Your task to perform on an android device: Open the calendar app, open the side menu, and click the "Day" option Image 0: 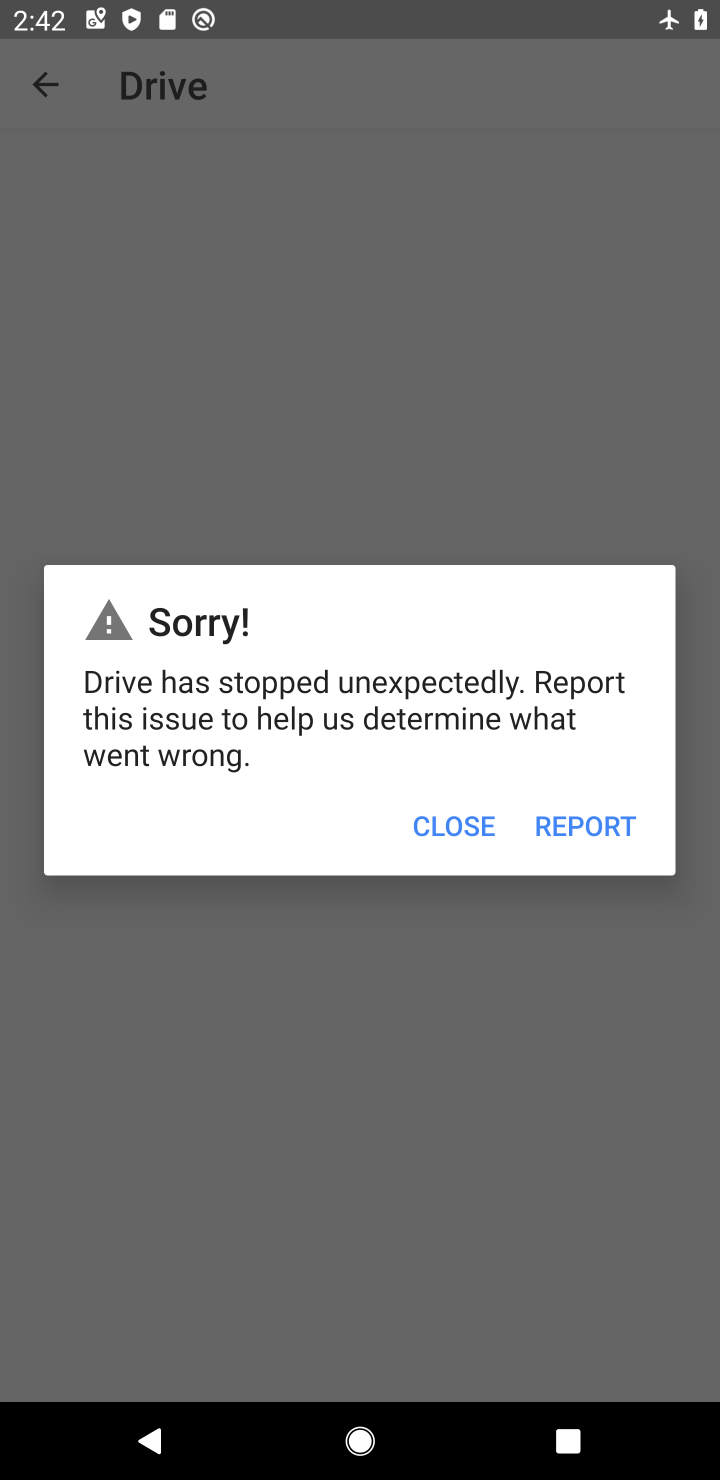
Step 0: press home button
Your task to perform on an android device: Open the calendar app, open the side menu, and click the "Day" option Image 1: 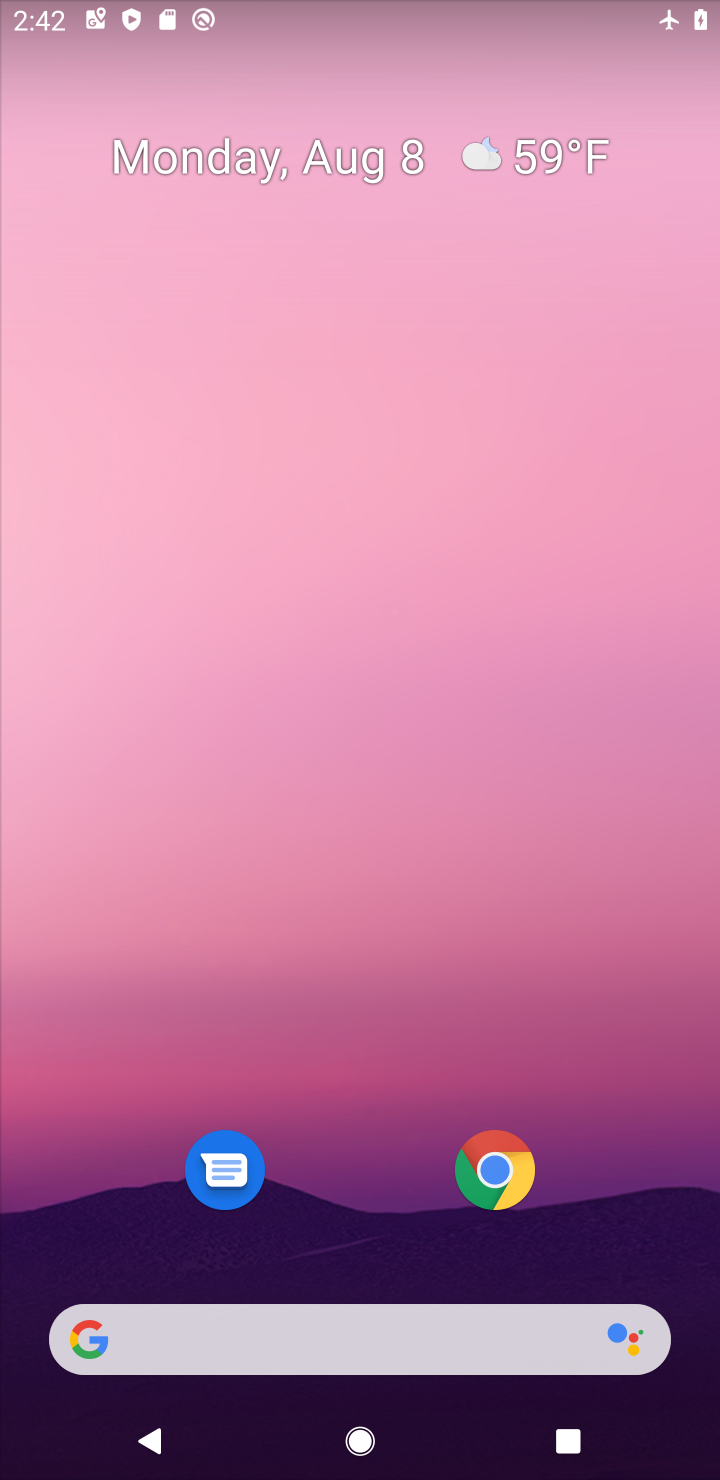
Step 1: drag from (413, 1177) to (467, 418)
Your task to perform on an android device: Open the calendar app, open the side menu, and click the "Day" option Image 2: 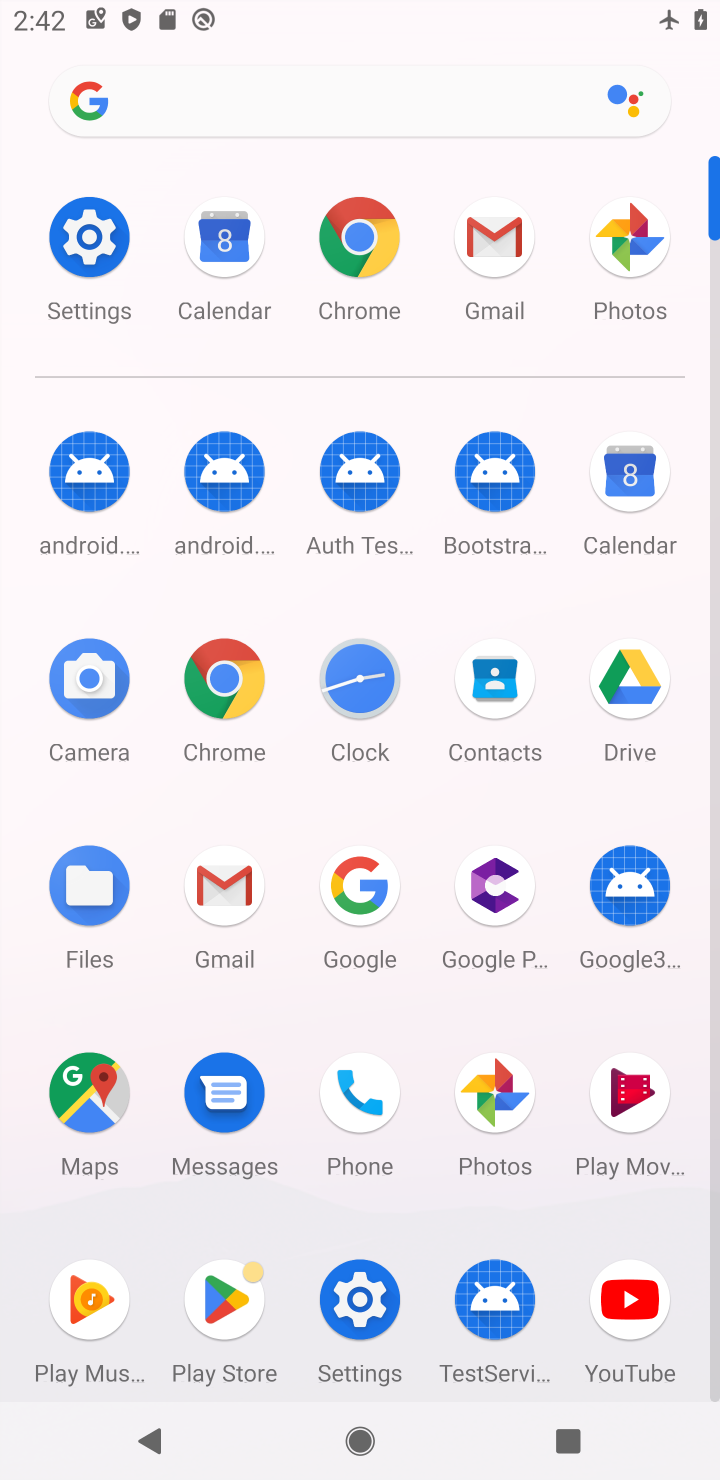
Step 2: click (625, 520)
Your task to perform on an android device: Open the calendar app, open the side menu, and click the "Day" option Image 3: 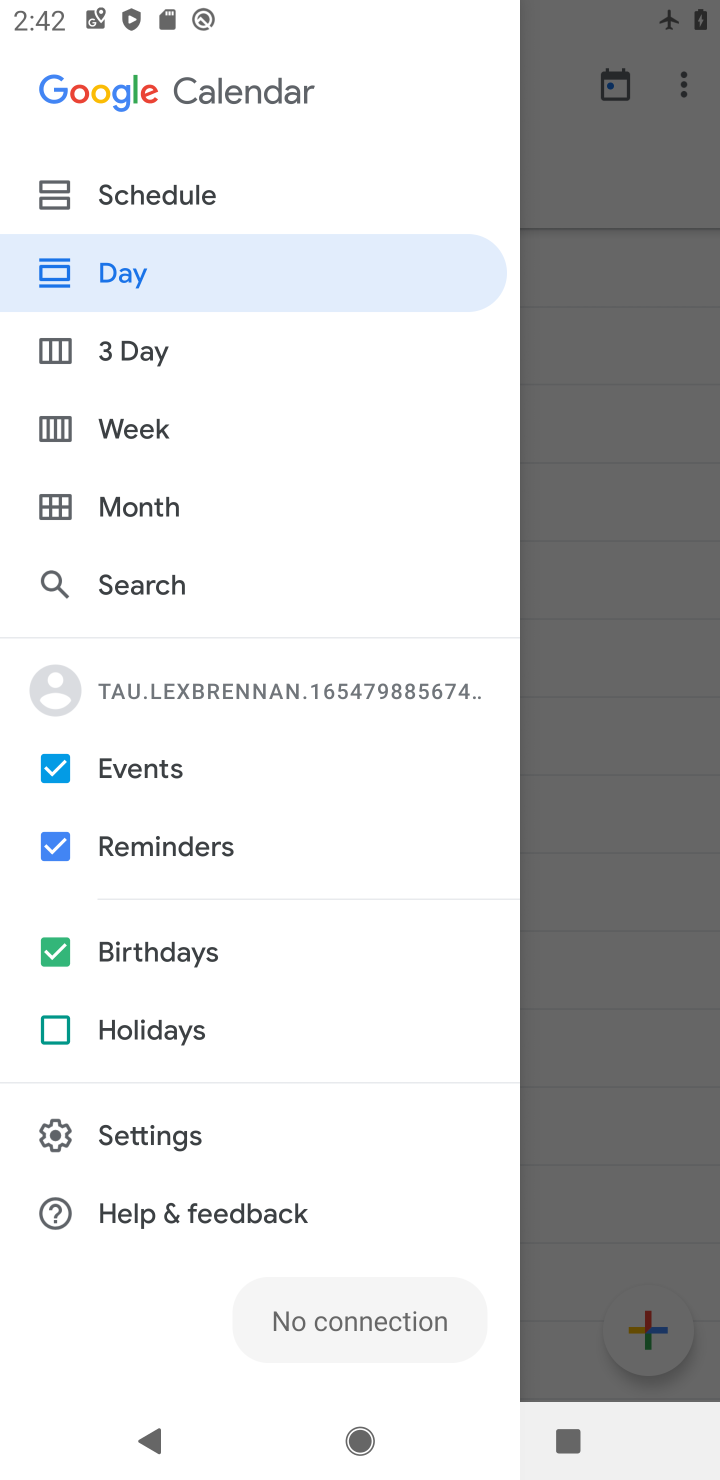
Step 3: click (632, 361)
Your task to perform on an android device: Open the calendar app, open the side menu, and click the "Day" option Image 4: 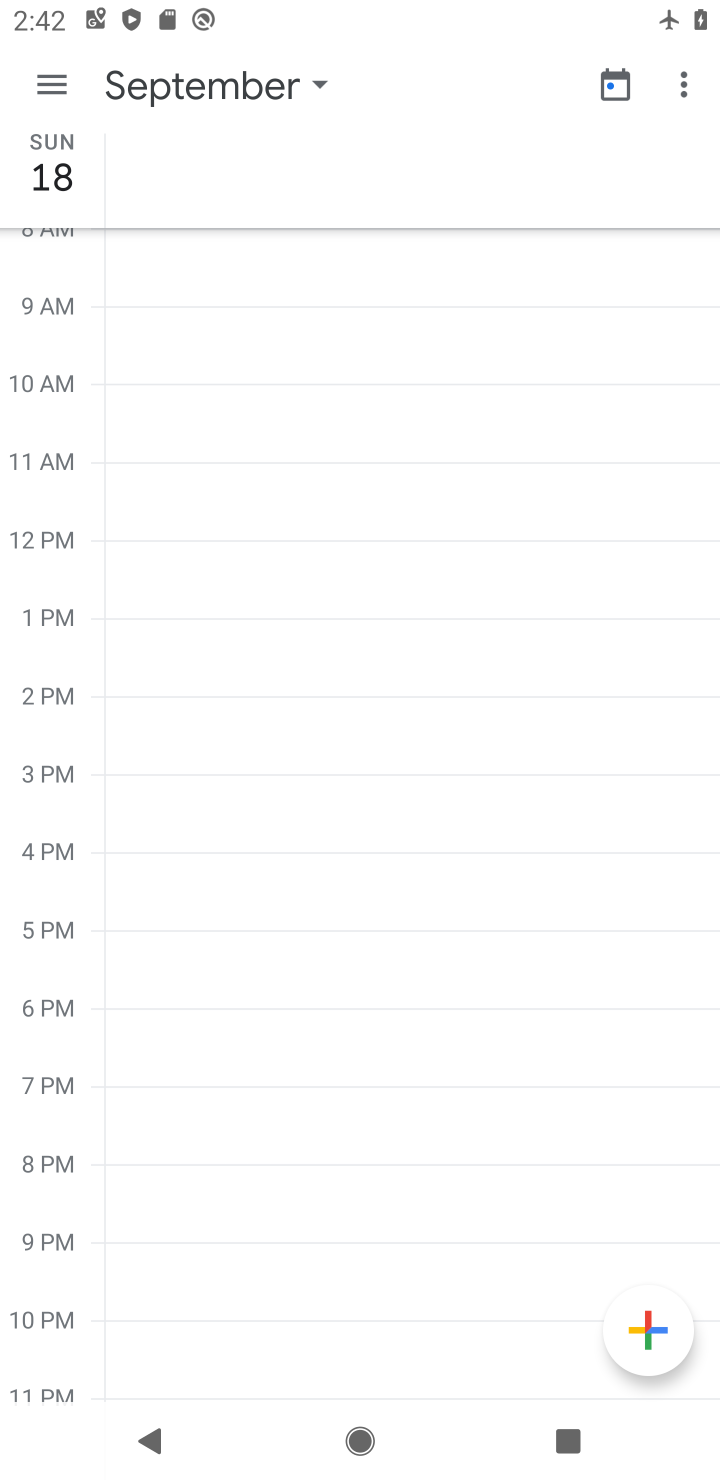
Step 4: task complete